Your task to perform on an android device: Toggle the flashlight Image 0: 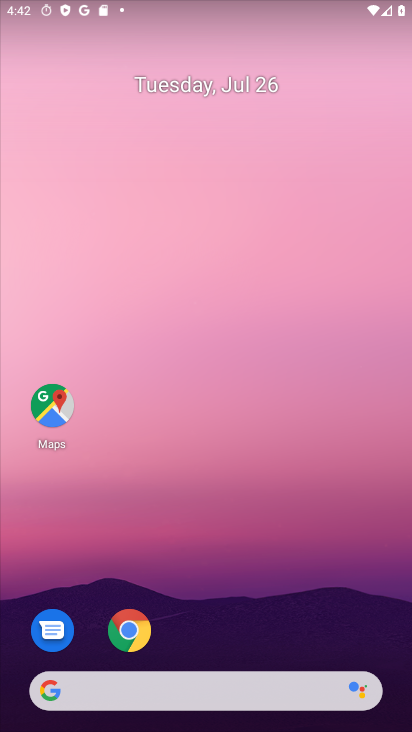
Step 0: drag from (324, 546) to (308, 47)
Your task to perform on an android device: Toggle the flashlight Image 1: 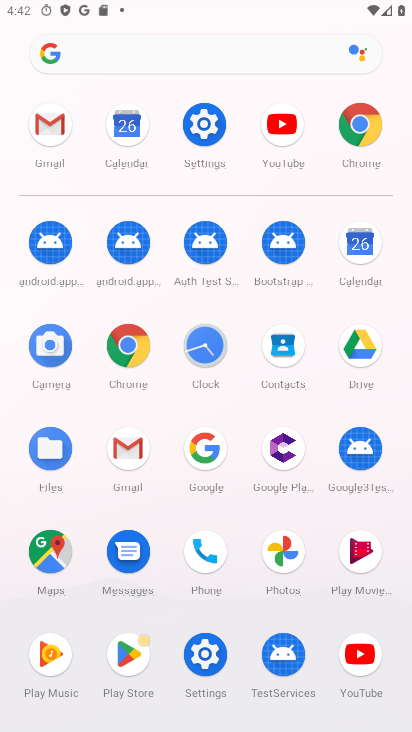
Step 1: click (208, 126)
Your task to perform on an android device: Toggle the flashlight Image 2: 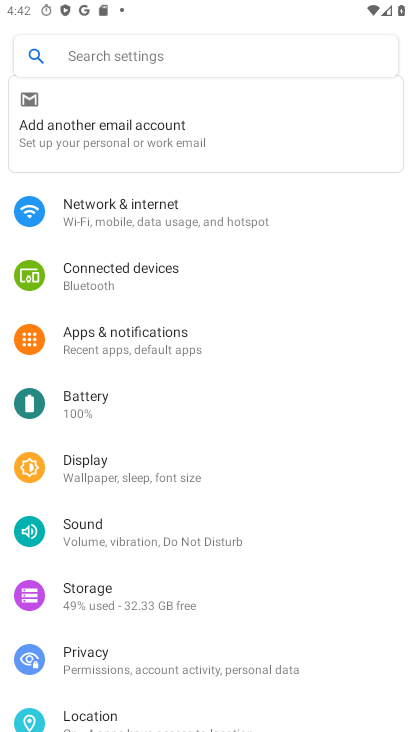
Step 2: click (121, 464)
Your task to perform on an android device: Toggle the flashlight Image 3: 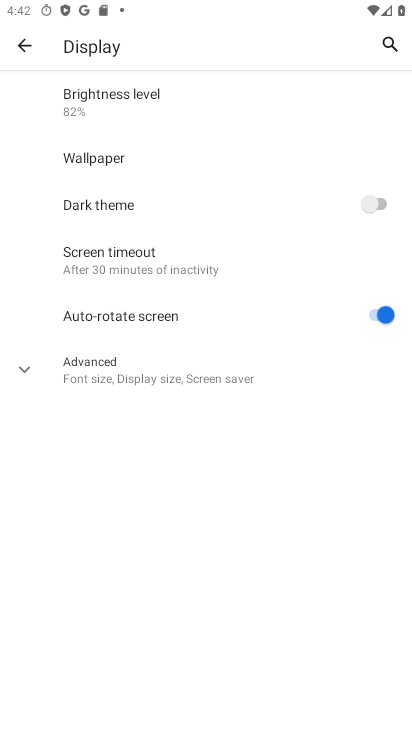
Step 3: click (140, 254)
Your task to perform on an android device: Toggle the flashlight Image 4: 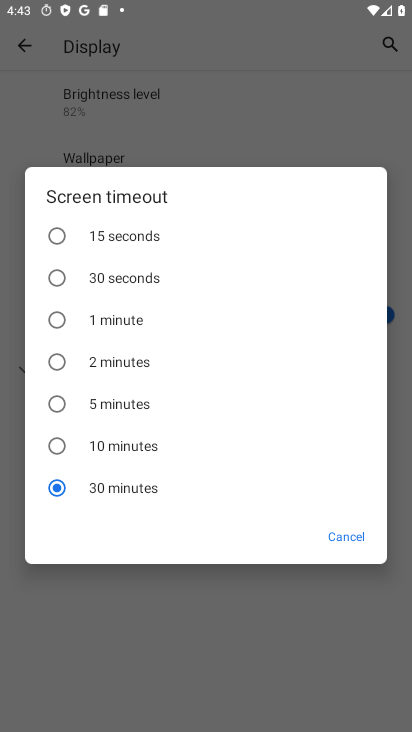
Step 4: task complete